Your task to perform on an android device: Do I have any events today? Image 0: 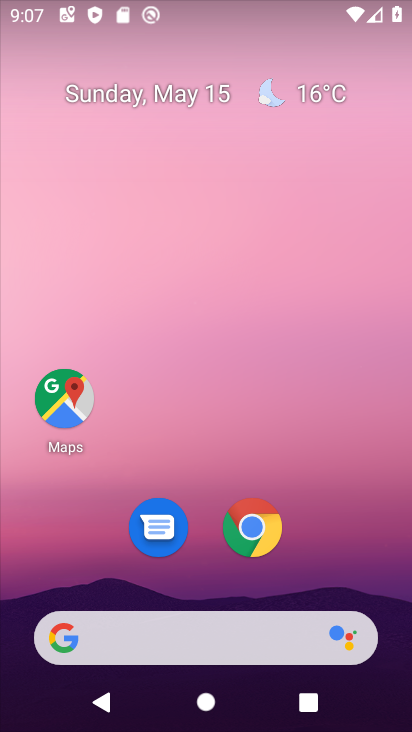
Step 0: drag from (370, 576) to (307, 0)
Your task to perform on an android device: Do I have any events today? Image 1: 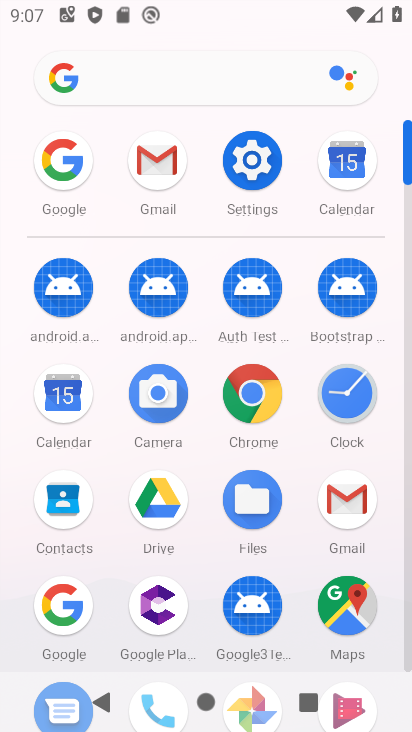
Step 1: click (338, 169)
Your task to perform on an android device: Do I have any events today? Image 2: 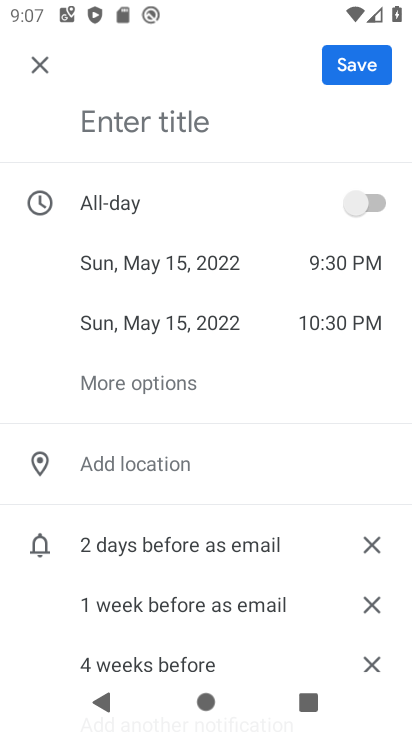
Step 2: task complete